Your task to perform on an android device: Open the calendar app, open the side menu, and click the "Day" option Image 0: 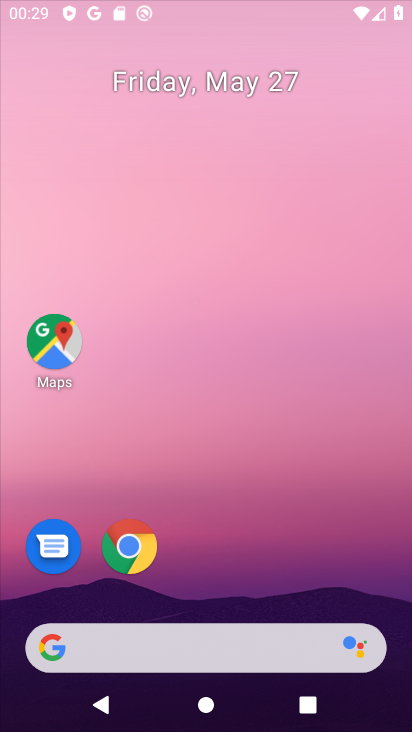
Step 0: drag from (361, 582) to (336, 144)
Your task to perform on an android device: Open the calendar app, open the side menu, and click the "Day" option Image 1: 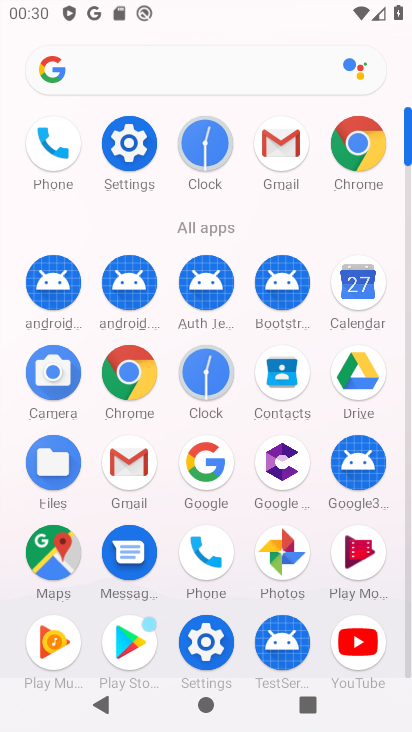
Step 1: click (358, 295)
Your task to perform on an android device: Open the calendar app, open the side menu, and click the "Day" option Image 2: 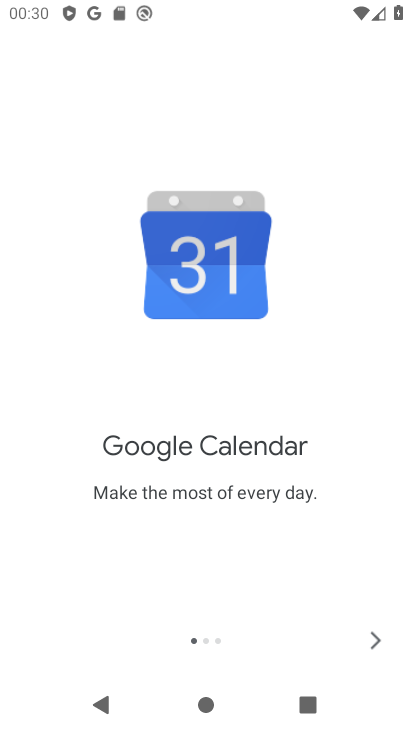
Step 2: click (379, 645)
Your task to perform on an android device: Open the calendar app, open the side menu, and click the "Day" option Image 3: 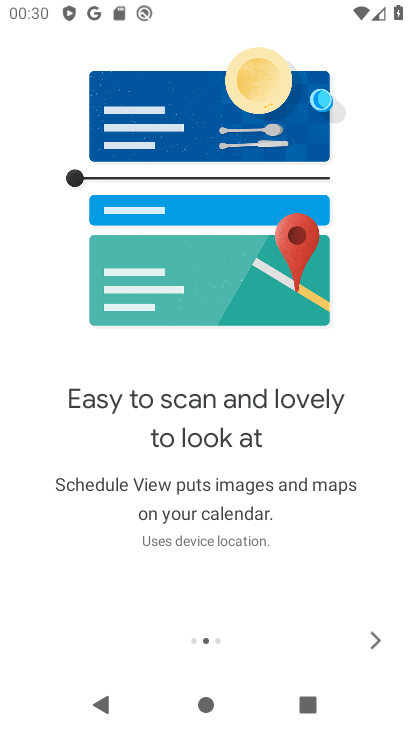
Step 3: click (382, 646)
Your task to perform on an android device: Open the calendar app, open the side menu, and click the "Day" option Image 4: 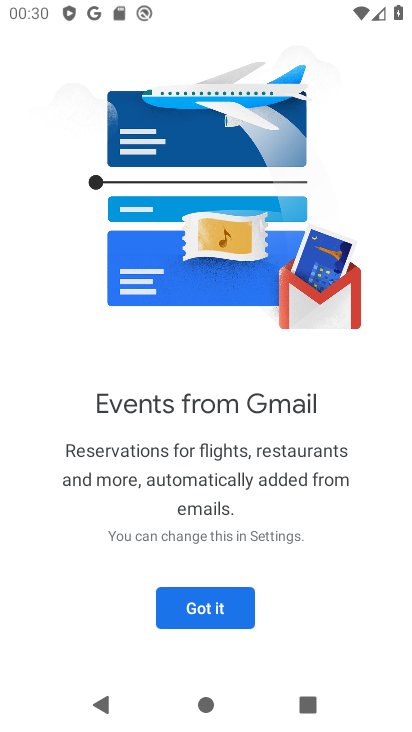
Step 4: click (205, 615)
Your task to perform on an android device: Open the calendar app, open the side menu, and click the "Day" option Image 5: 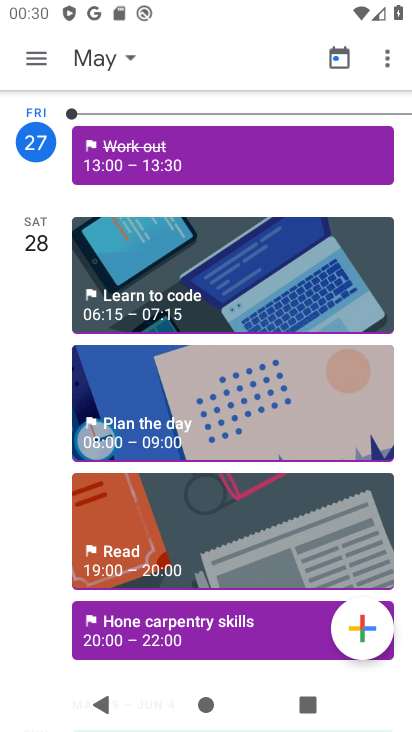
Step 5: click (26, 63)
Your task to perform on an android device: Open the calendar app, open the side menu, and click the "Day" option Image 6: 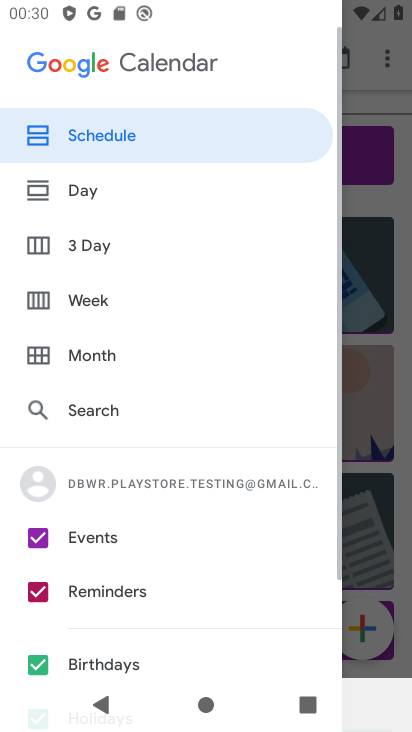
Step 6: click (82, 189)
Your task to perform on an android device: Open the calendar app, open the side menu, and click the "Day" option Image 7: 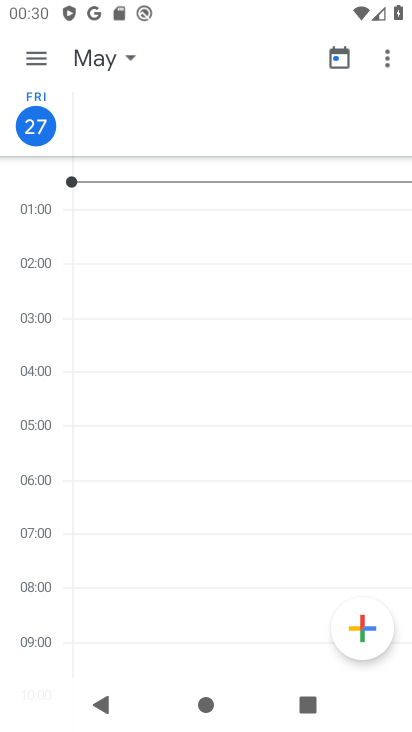
Step 7: task complete